Your task to perform on an android device: Go to wifi settings Image 0: 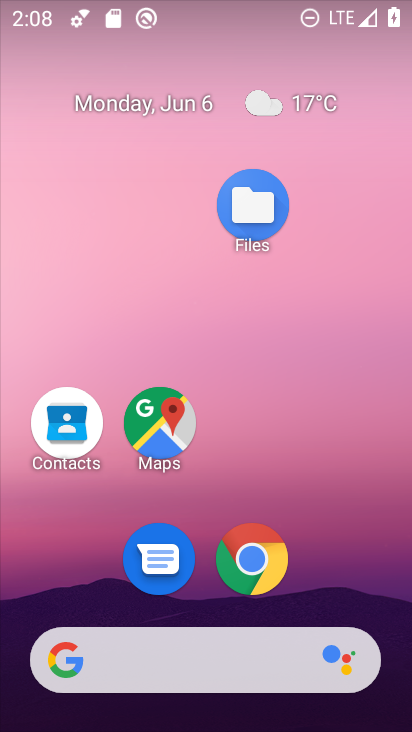
Step 0: drag from (247, 669) to (274, 199)
Your task to perform on an android device: Go to wifi settings Image 1: 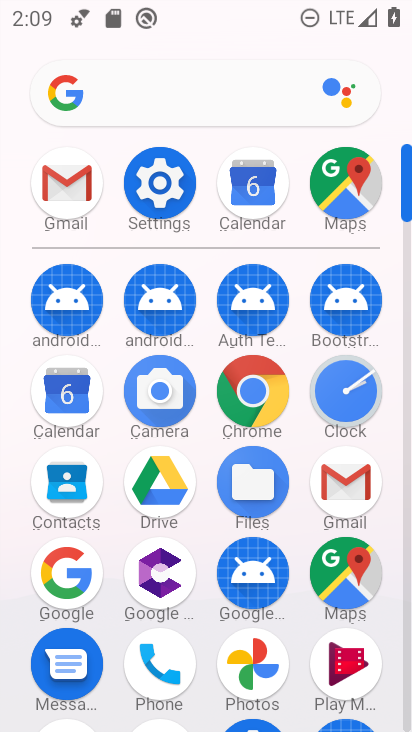
Step 1: click (177, 211)
Your task to perform on an android device: Go to wifi settings Image 2: 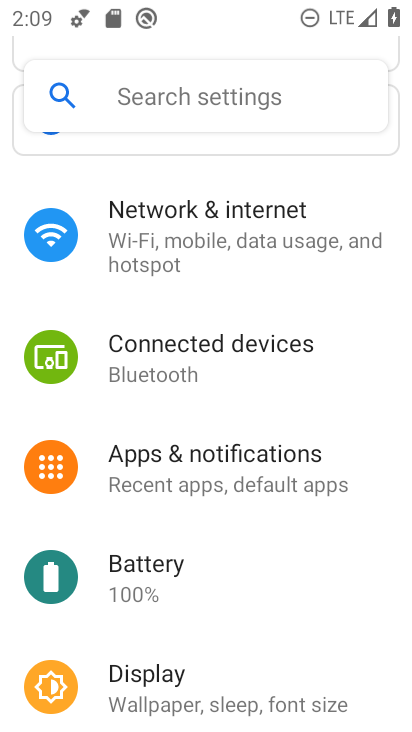
Step 2: drag from (193, 330) to (220, 621)
Your task to perform on an android device: Go to wifi settings Image 3: 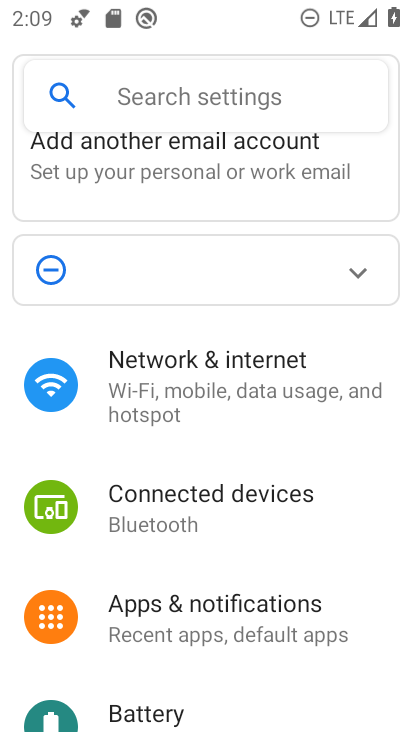
Step 3: click (248, 371)
Your task to perform on an android device: Go to wifi settings Image 4: 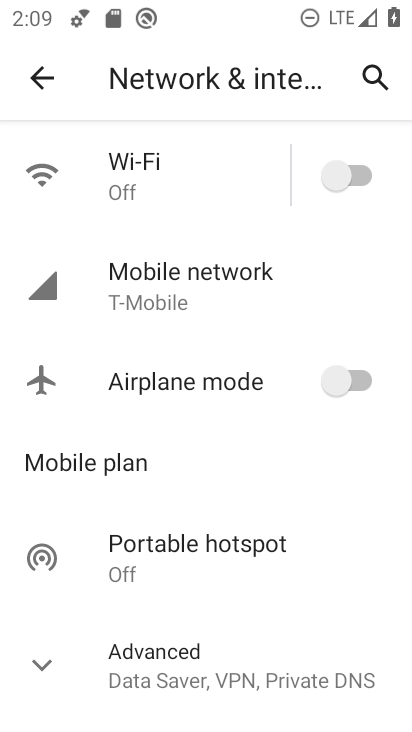
Step 4: click (183, 182)
Your task to perform on an android device: Go to wifi settings Image 5: 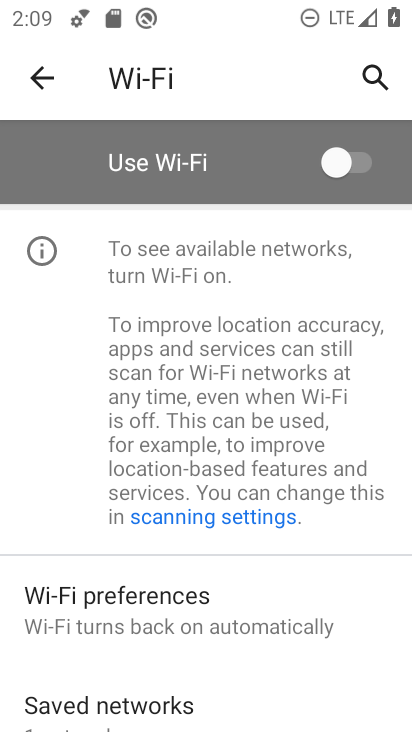
Step 5: task complete